Your task to perform on an android device: open a bookmark in the chrome app Image 0: 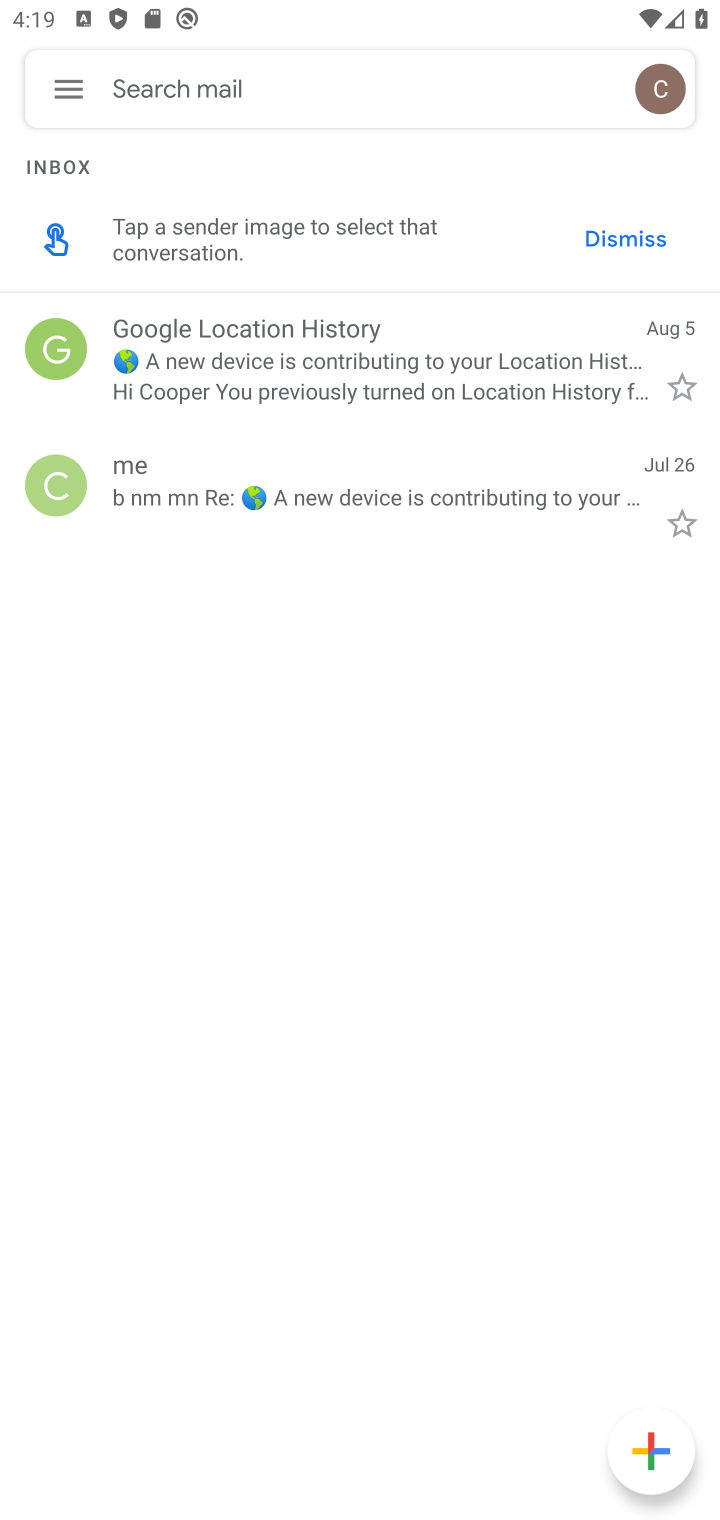
Step 0: press home button
Your task to perform on an android device: open a bookmark in the chrome app Image 1: 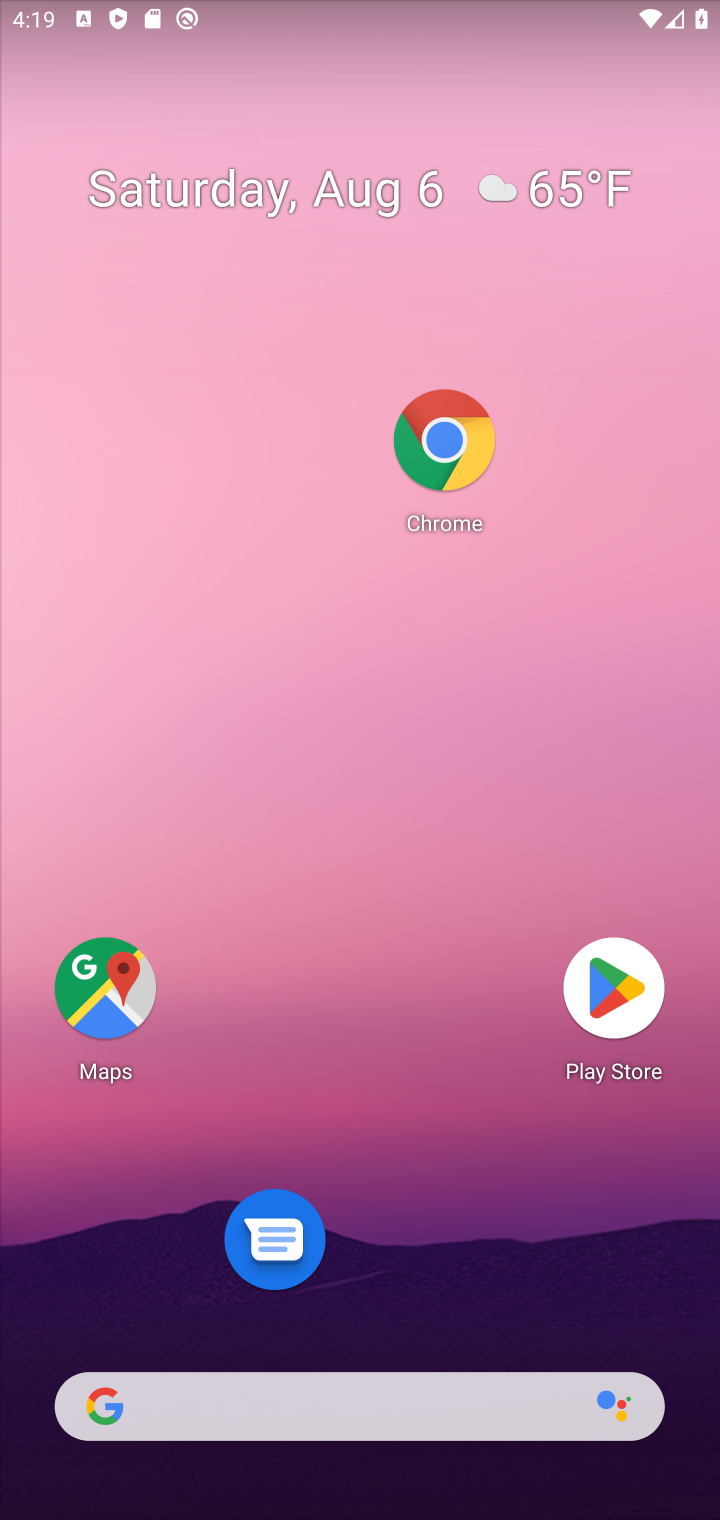
Step 1: drag from (453, 1408) to (407, 25)
Your task to perform on an android device: open a bookmark in the chrome app Image 2: 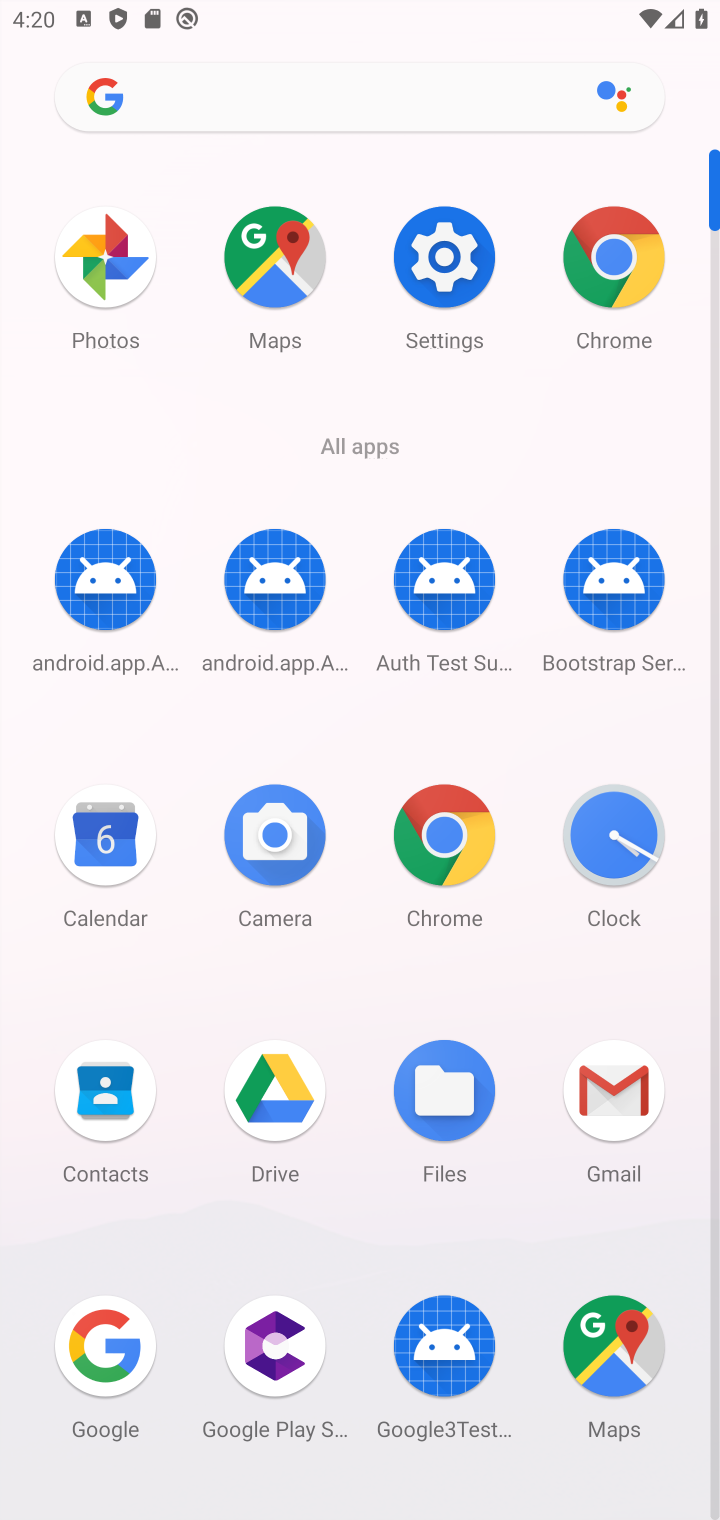
Step 2: click (476, 839)
Your task to perform on an android device: open a bookmark in the chrome app Image 3: 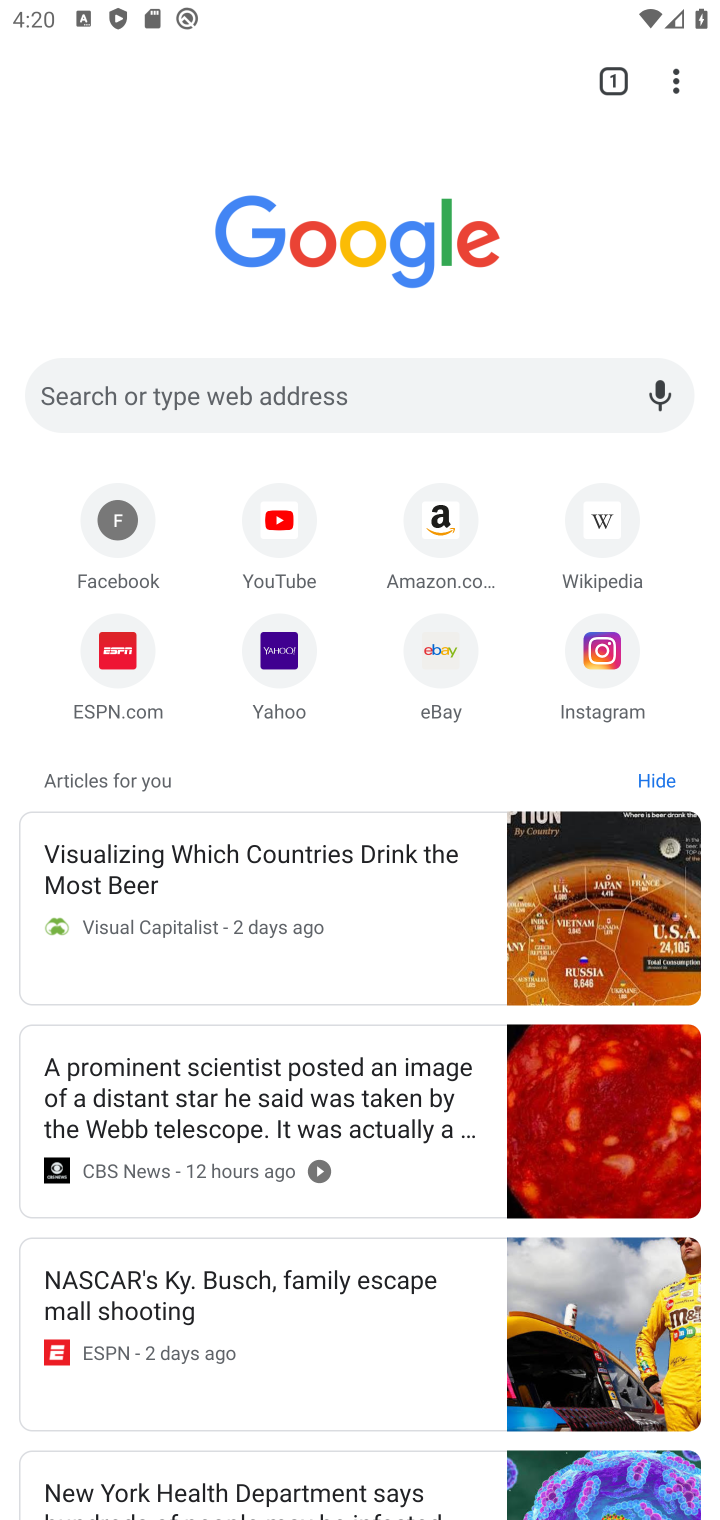
Step 3: click (668, 73)
Your task to perform on an android device: open a bookmark in the chrome app Image 4: 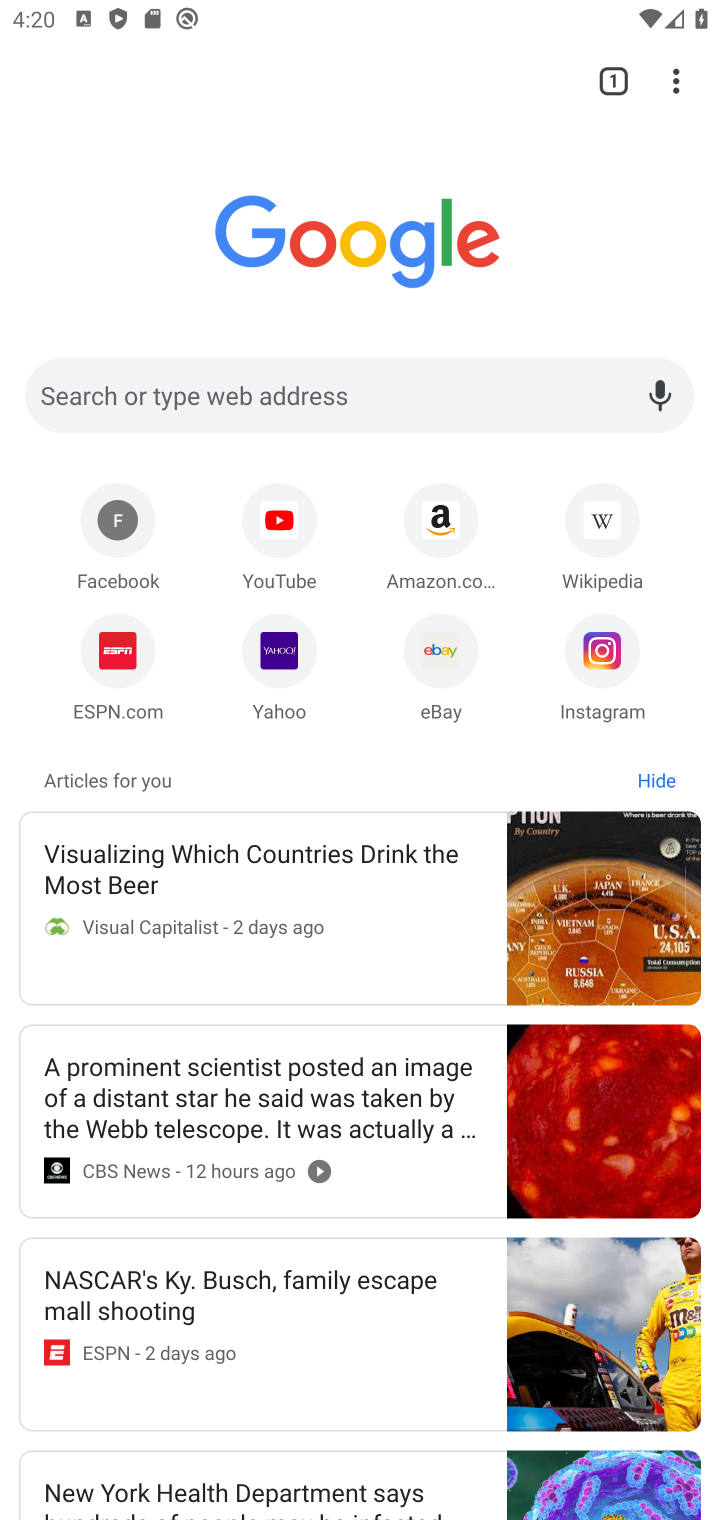
Step 4: click (680, 83)
Your task to perform on an android device: open a bookmark in the chrome app Image 5: 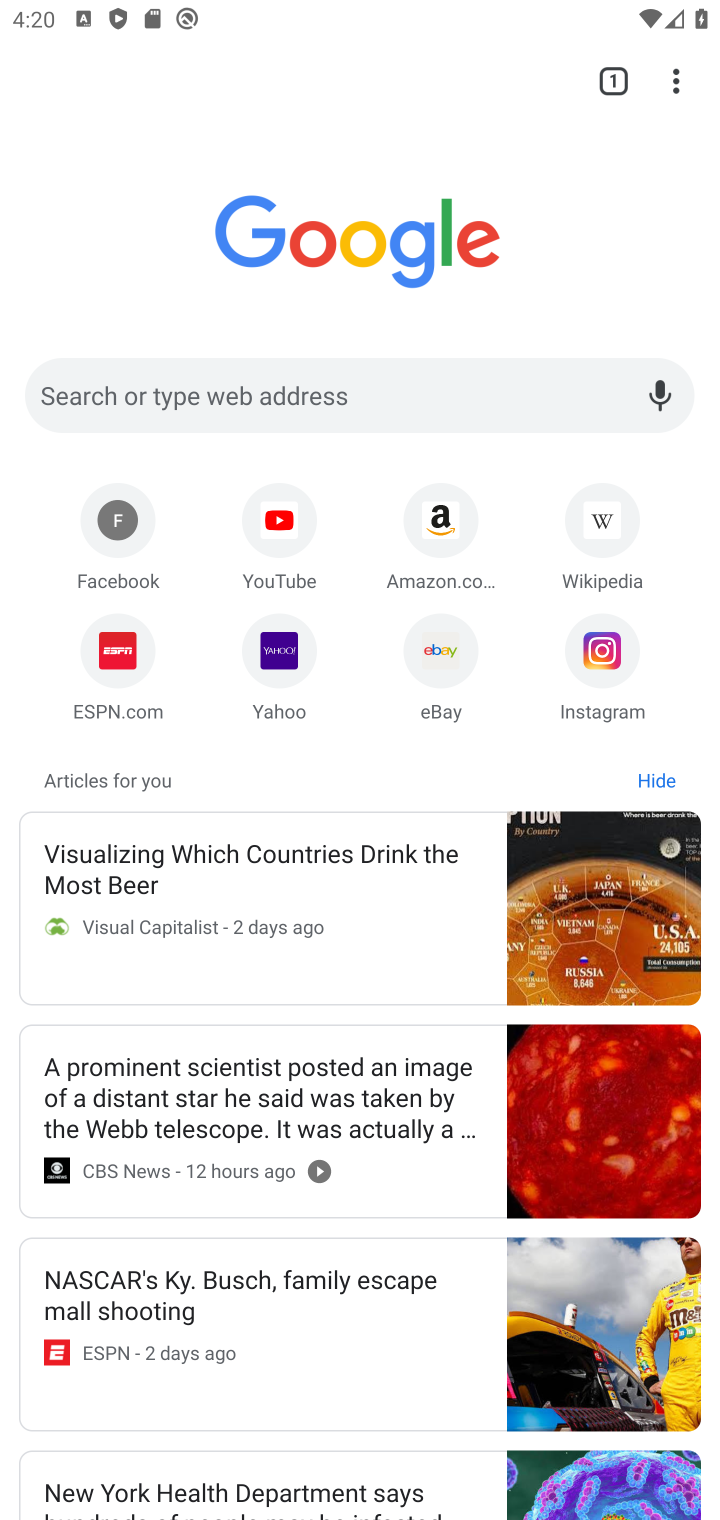
Step 5: task complete